Your task to perform on an android device: snooze an email in the gmail app Image 0: 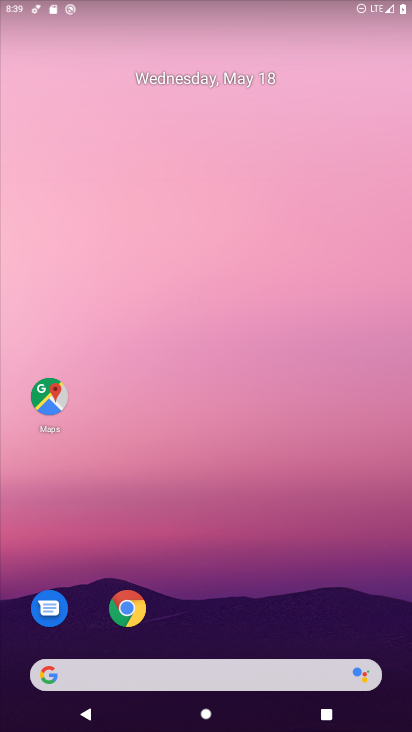
Step 0: drag from (234, 596) to (207, 69)
Your task to perform on an android device: snooze an email in the gmail app Image 1: 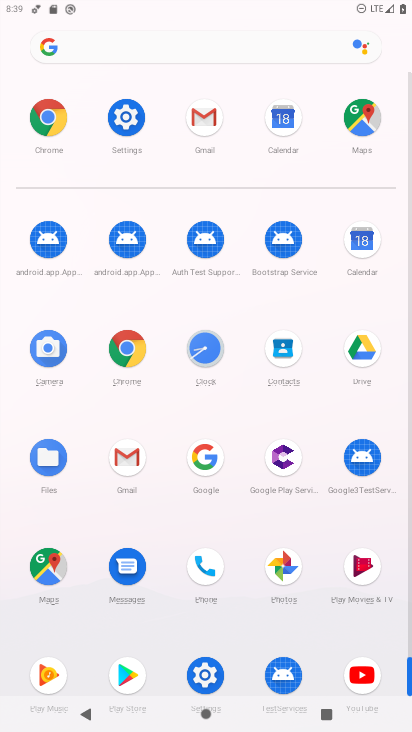
Step 1: click (127, 442)
Your task to perform on an android device: snooze an email in the gmail app Image 2: 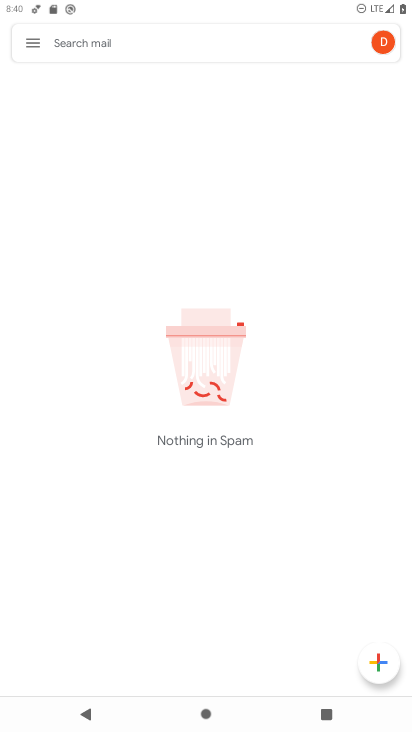
Step 2: click (34, 43)
Your task to perform on an android device: snooze an email in the gmail app Image 3: 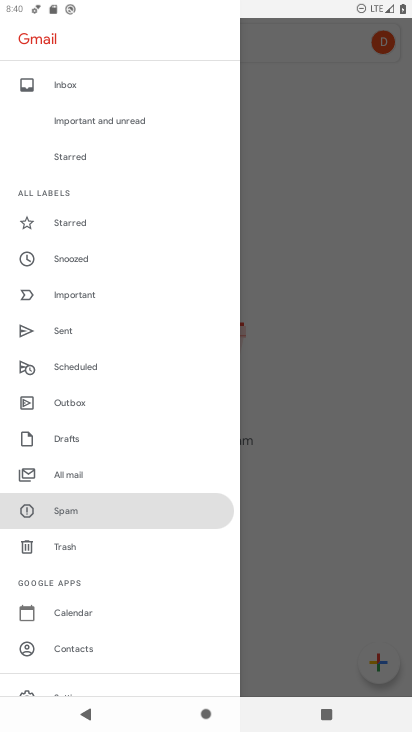
Step 3: drag from (139, 626) to (110, 378)
Your task to perform on an android device: snooze an email in the gmail app Image 4: 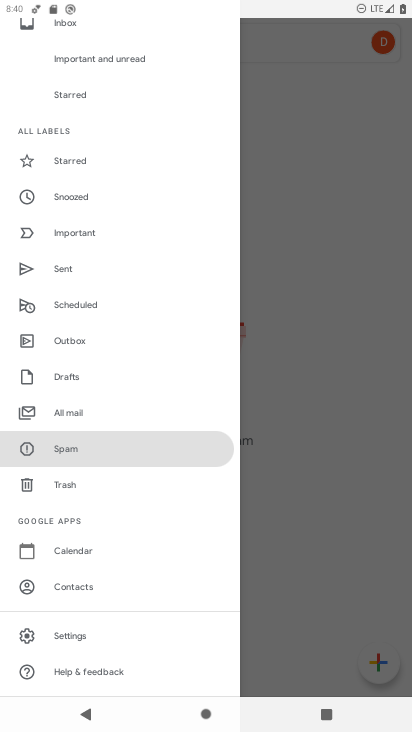
Step 4: click (77, 414)
Your task to perform on an android device: snooze an email in the gmail app Image 5: 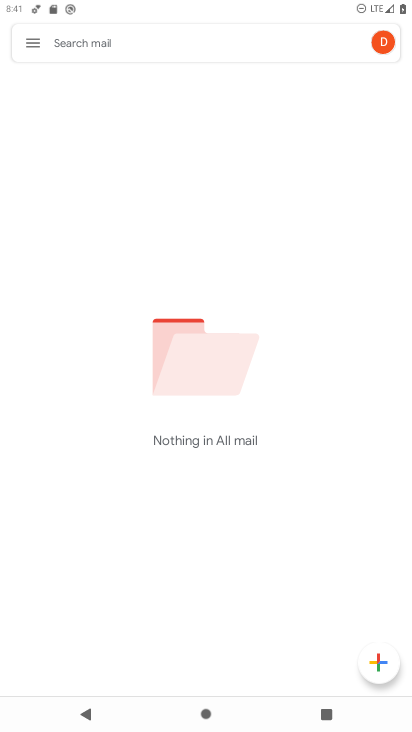
Step 5: task complete